Your task to perform on an android device: turn on showing notifications on the lock screen Image 0: 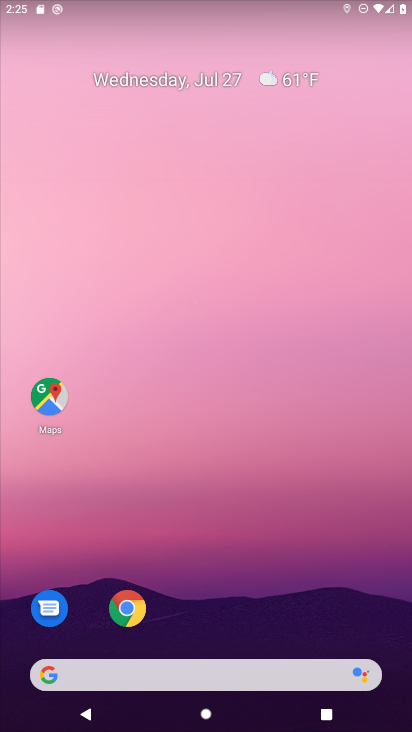
Step 0: drag from (195, 627) to (134, 229)
Your task to perform on an android device: turn on showing notifications on the lock screen Image 1: 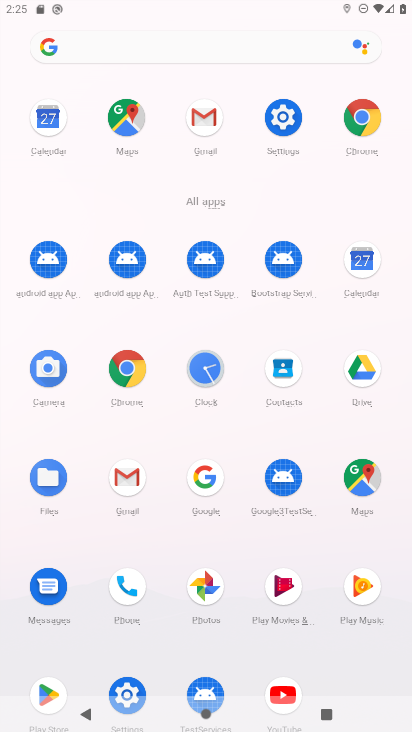
Step 1: click (287, 119)
Your task to perform on an android device: turn on showing notifications on the lock screen Image 2: 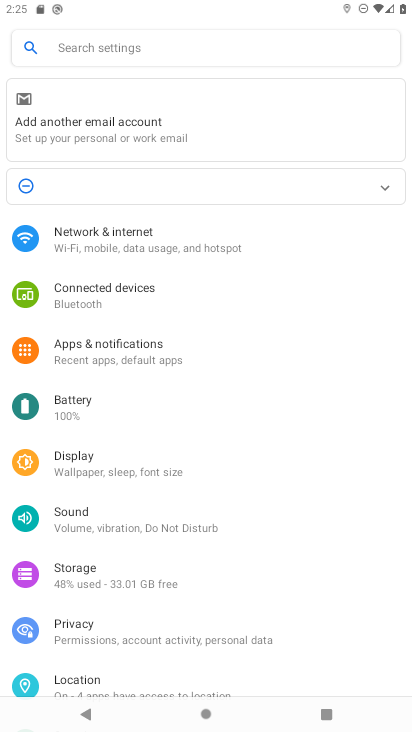
Step 2: click (161, 349)
Your task to perform on an android device: turn on showing notifications on the lock screen Image 3: 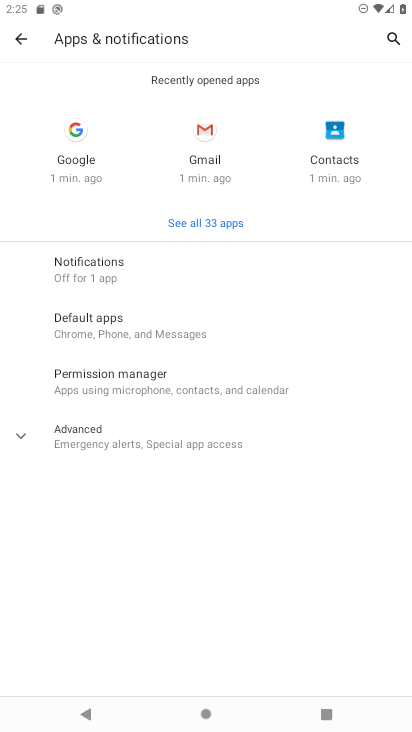
Step 3: click (78, 281)
Your task to perform on an android device: turn on showing notifications on the lock screen Image 4: 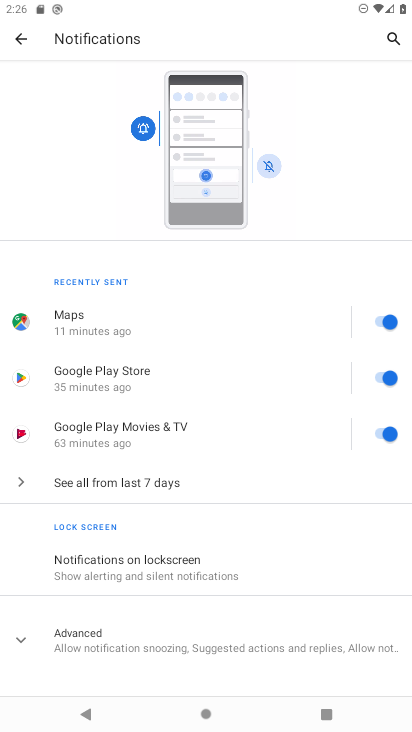
Step 4: click (187, 564)
Your task to perform on an android device: turn on showing notifications on the lock screen Image 5: 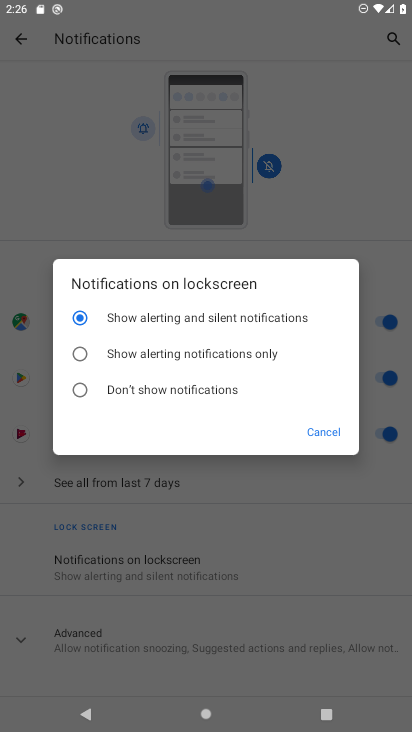
Step 5: click (76, 357)
Your task to perform on an android device: turn on showing notifications on the lock screen Image 6: 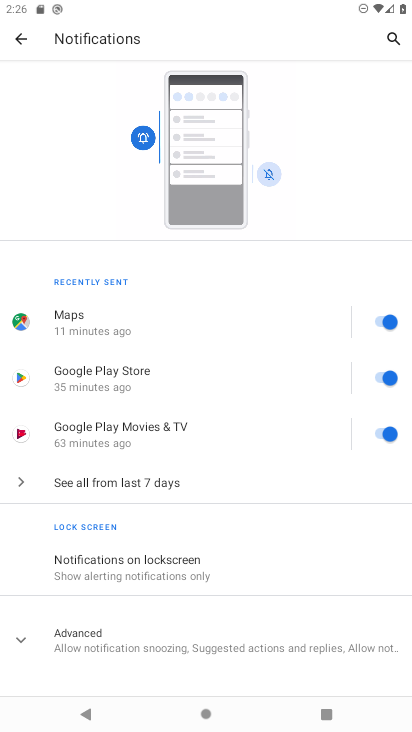
Step 6: task complete